Your task to perform on an android device: turn on bluetooth scan Image 0: 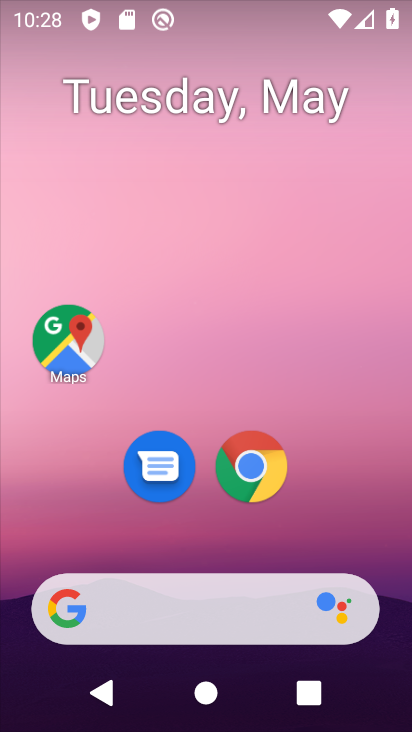
Step 0: drag from (197, 553) to (343, 398)
Your task to perform on an android device: turn on bluetooth scan Image 1: 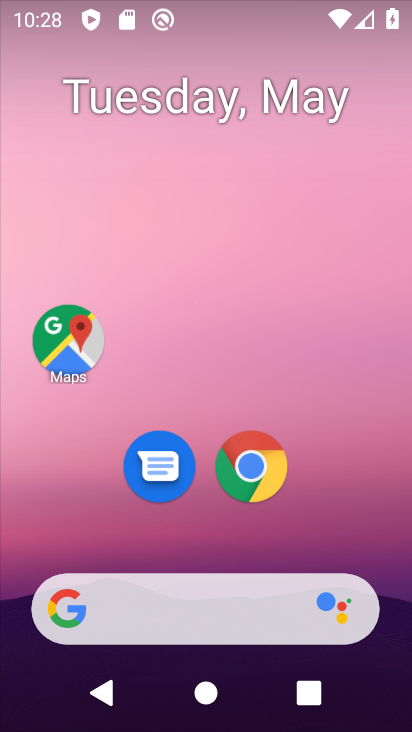
Step 1: drag from (259, 552) to (175, 21)
Your task to perform on an android device: turn on bluetooth scan Image 2: 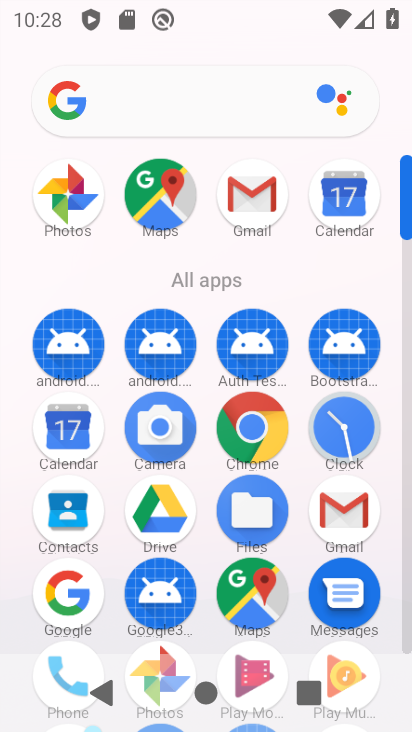
Step 2: drag from (206, 617) to (180, 175)
Your task to perform on an android device: turn on bluetooth scan Image 3: 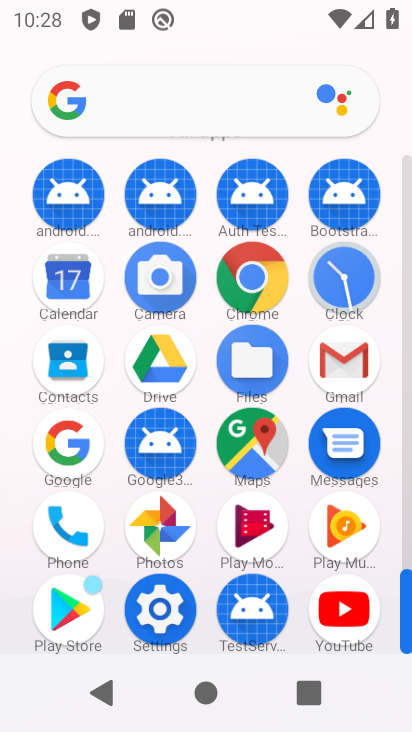
Step 3: click (156, 615)
Your task to perform on an android device: turn on bluetooth scan Image 4: 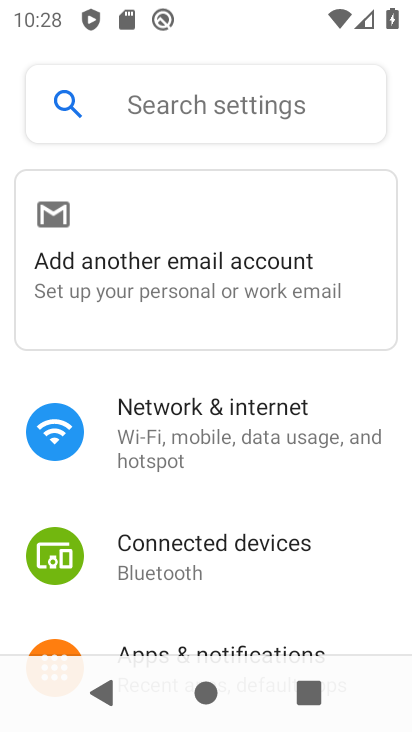
Step 4: drag from (222, 624) to (223, 171)
Your task to perform on an android device: turn on bluetooth scan Image 5: 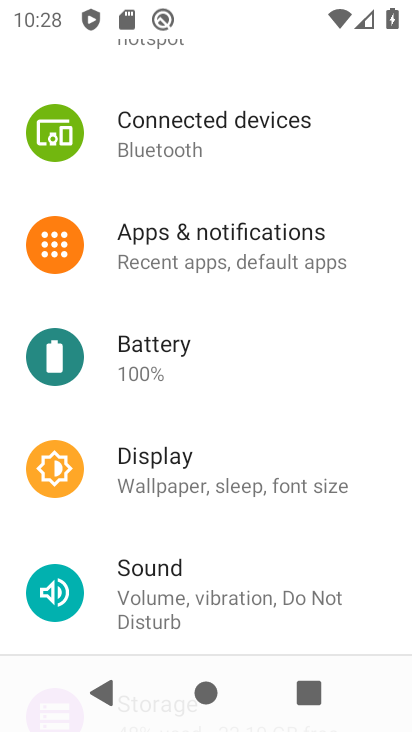
Step 5: drag from (210, 506) to (192, 129)
Your task to perform on an android device: turn on bluetooth scan Image 6: 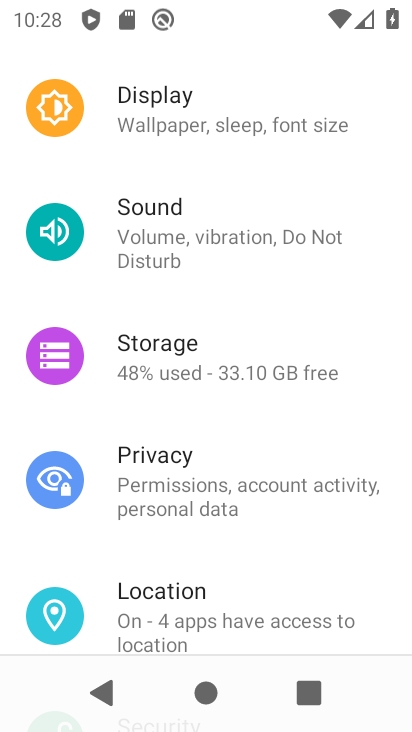
Step 6: click (160, 586)
Your task to perform on an android device: turn on bluetooth scan Image 7: 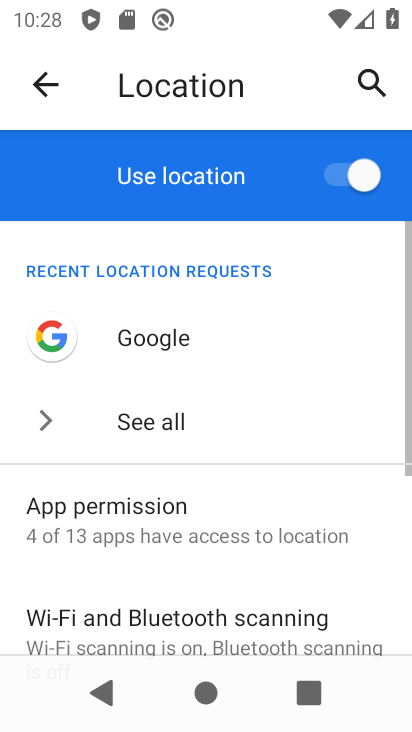
Step 7: drag from (165, 586) to (143, 282)
Your task to perform on an android device: turn on bluetooth scan Image 8: 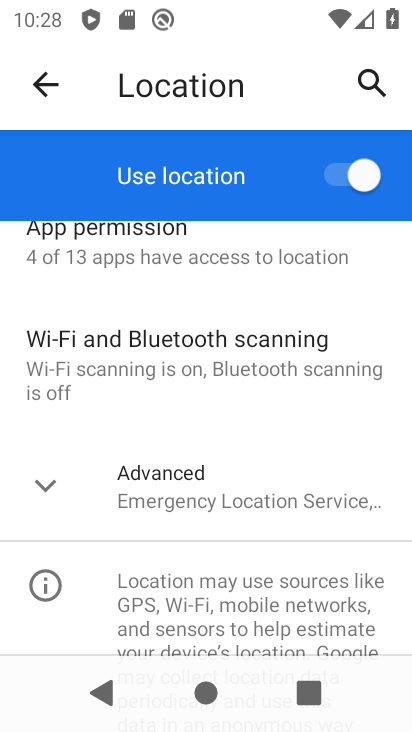
Step 8: click (138, 327)
Your task to perform on an android device: turn on bluetooth scan Image 9: 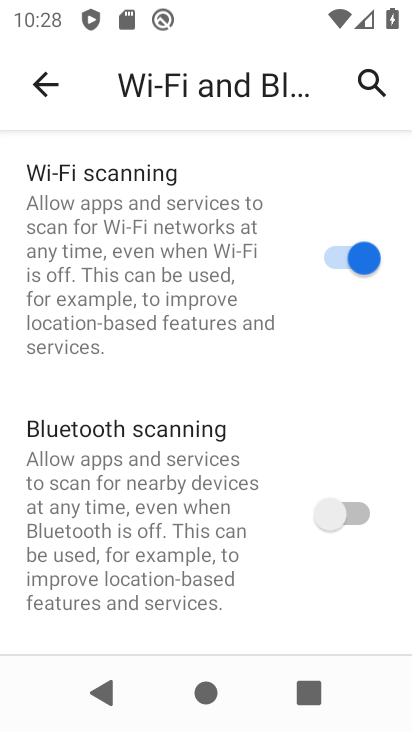
Step 9: click (333, 528)
Your task to perform on an android device: turn on bluetooth scan Image 10: 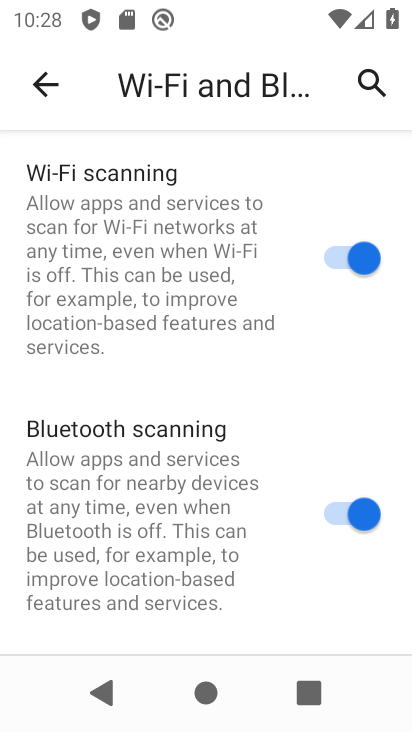
Step 10: task complete